Your task to perform on an android device: Check the news Image 0: 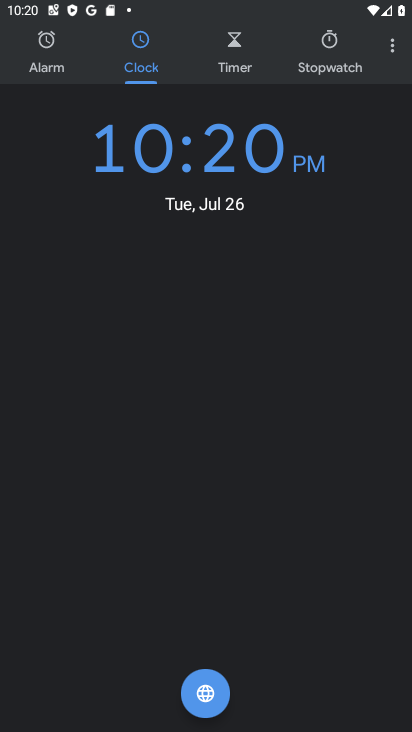
Step 0: press home button
Your task to perform on an android device: Check the news Image 1: 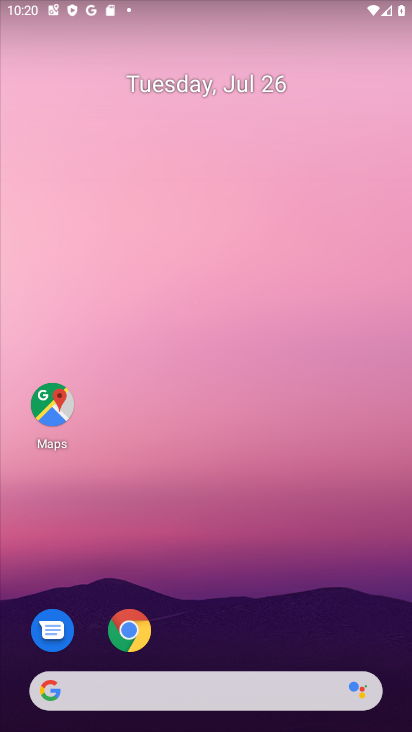
Step 1: drag from (159, 678) to (194, 248)
Your task to perform on an android device: Check the news Image 2: 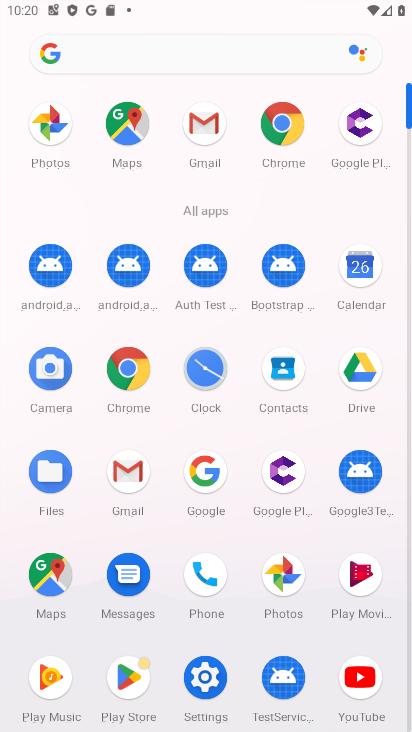
Step 2: click (201, 469)
Your task to perform on an android device: Check the news Image 3: 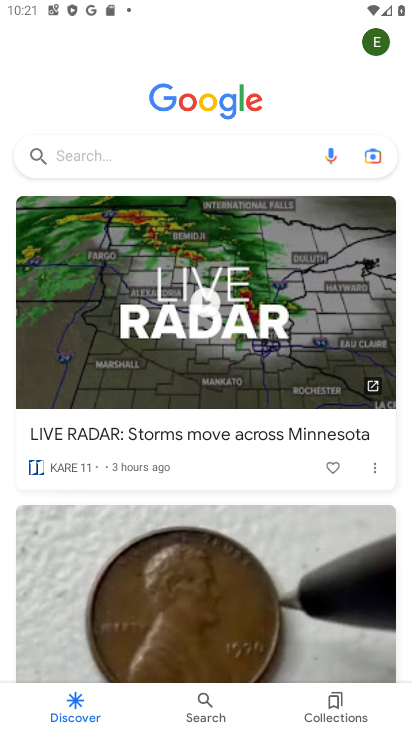
Step 3: click (175, 161)
Your task to perform on an android device: Check the news Image 4: 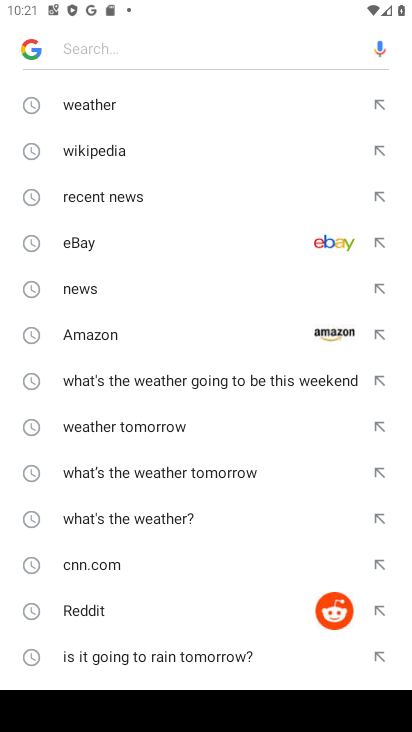
Step 4: type "news"
Your task to perform on an android device: Check the news Image 5: 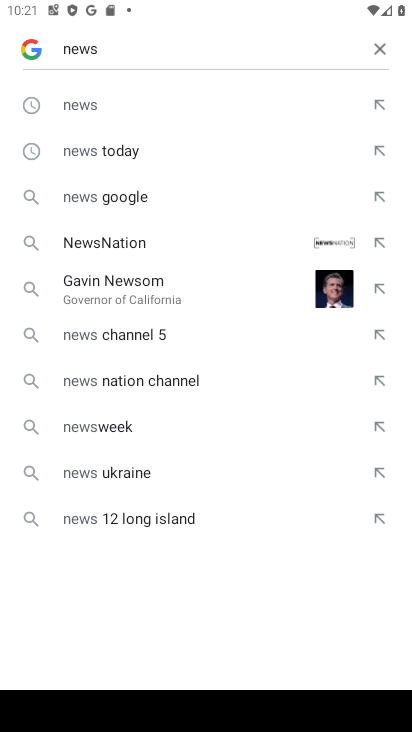
Step 5: click (95, 107)
Your task to perform on an android device: Check the news Image 6: 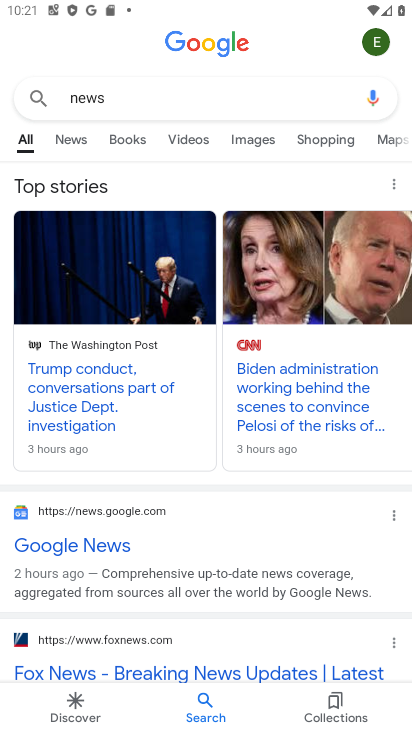
Step 6: click (92, 413)
Your task to perform on an android device: Check the news Image 7: 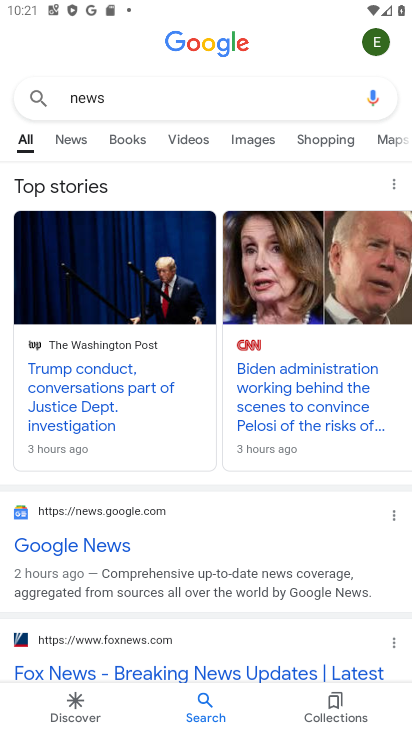
Step 7: click (92, 413)
Your task to perform on an android device: Check the news Image 8: 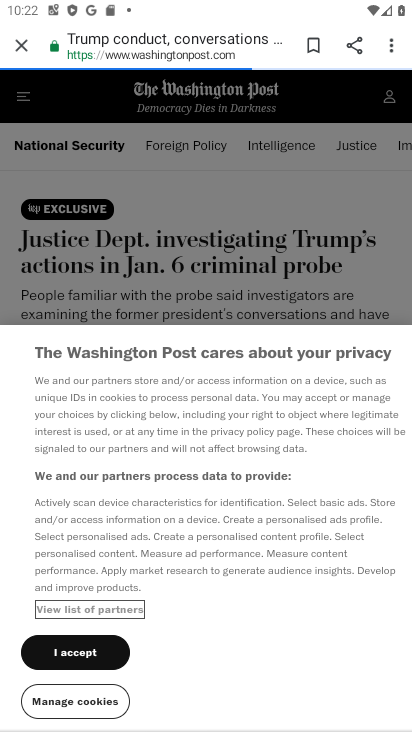
Step 8: click (101, 660)
Your task to perform on an android device: Check the news Image 9: 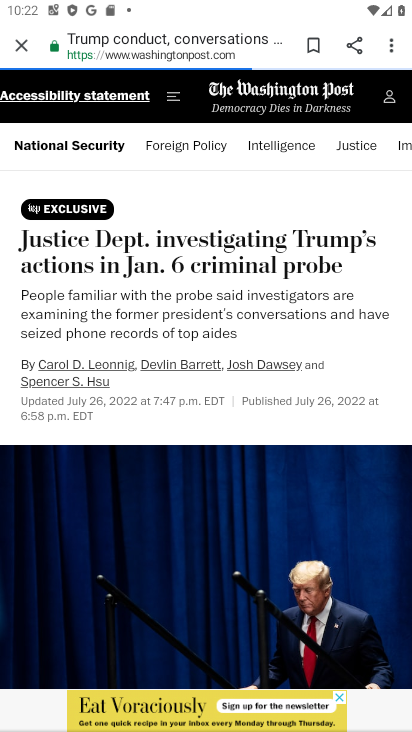
Step 9: task complete